Your task to perform on an android device: Open network settings Image 0: 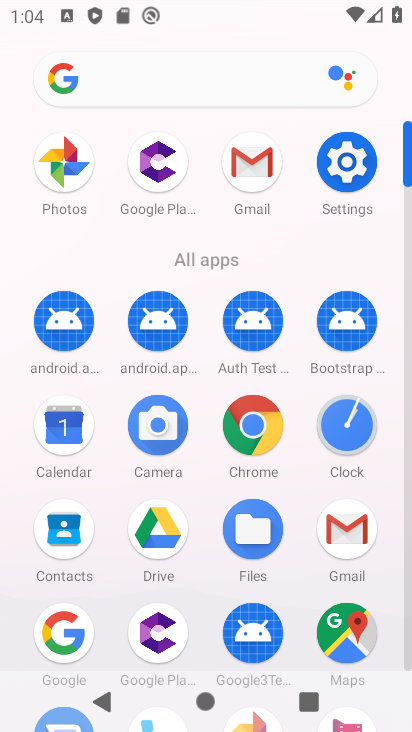
Step 0: press home button
Your task to perform on an android device: Open network settings Image 1: 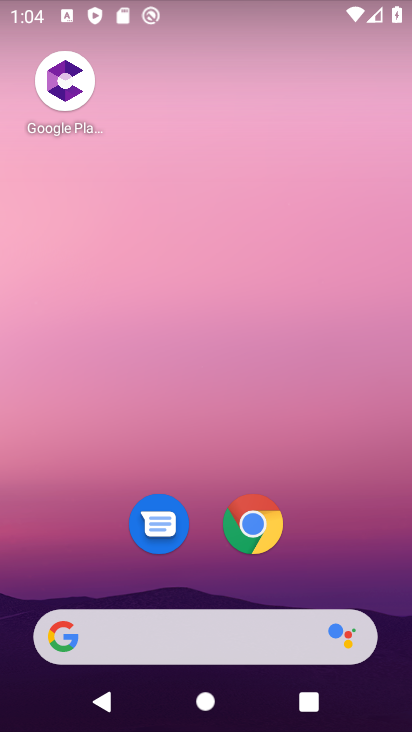
Step 1: drag from (281, 510) to (295, 48)
Your task to perform on an android device: Open network settings Image 2: 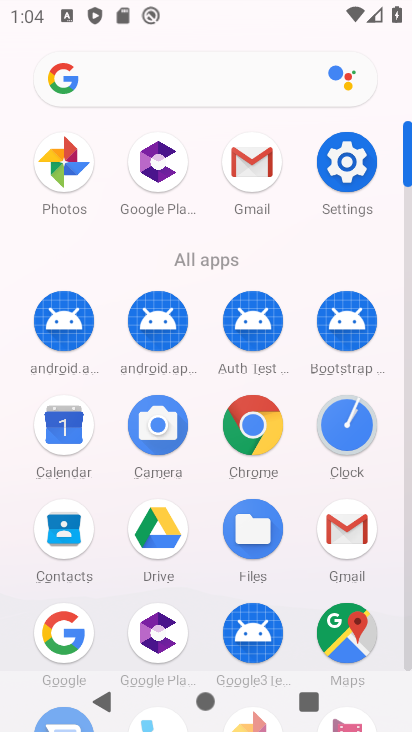
Step 2: click (341, 164)
Your task to perform on an android device: Open network settings Image 3: 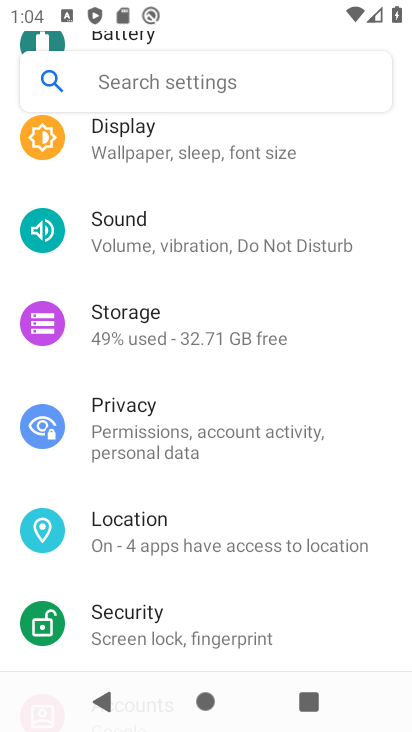
Step 3: drag from (253, 211) to (260, 551)
Your task to perform on an android device: Open network settings Image 4: 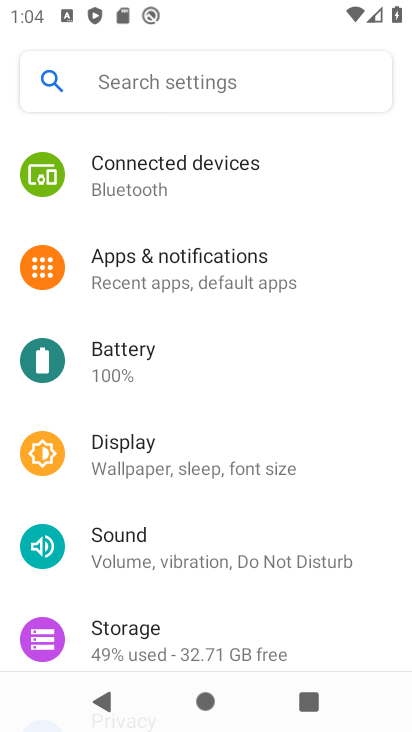
Step 4: drag from (242, 335) to (222, 577)
Your task to perform on an android device: Open network settings Image 5: 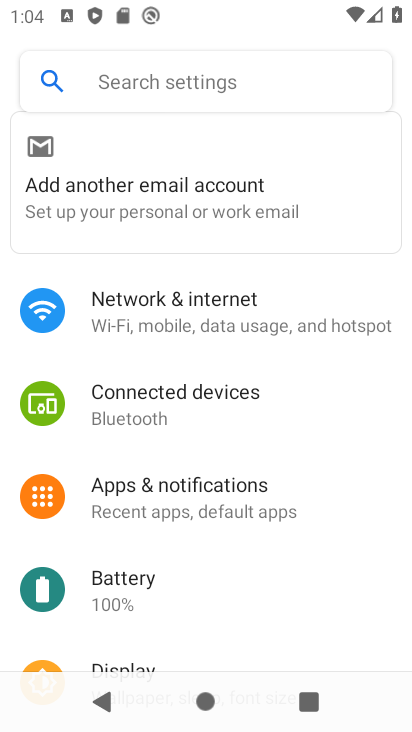
Step 5: click (237, 310)
Your task to perform on an android device: Open network settings Image 6: 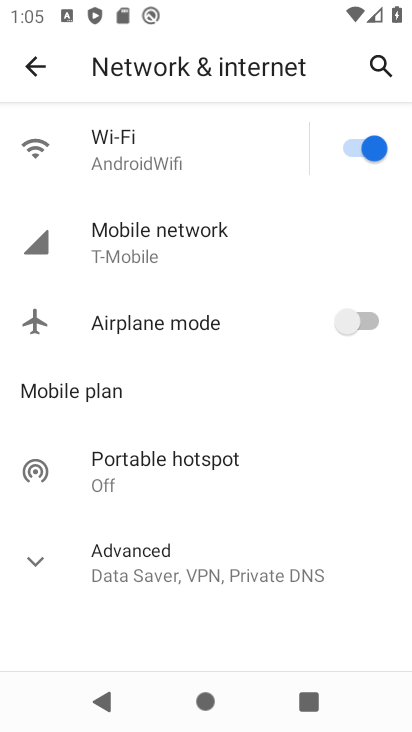
Step 6: task complete